Your task to perform on an android device: turn off picture-in-picture Image 0: 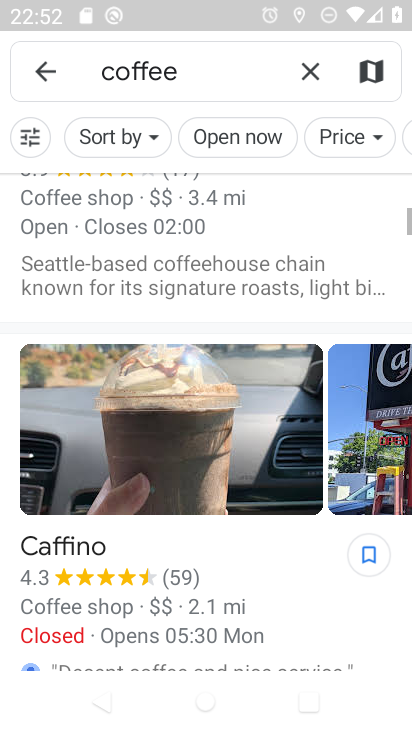
Step 0: press home button
Your task to perform on an android device: turn off picture-in-picture Image 1: 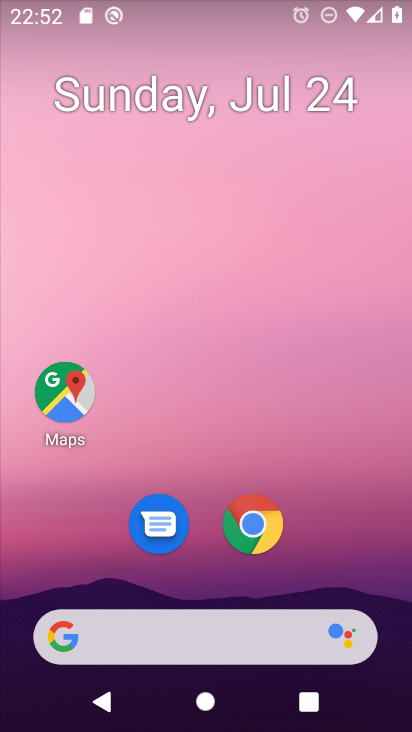
Step 1: click (258, 517)
Your task to perform on an android device: turn off picture-in-picture Image 2: 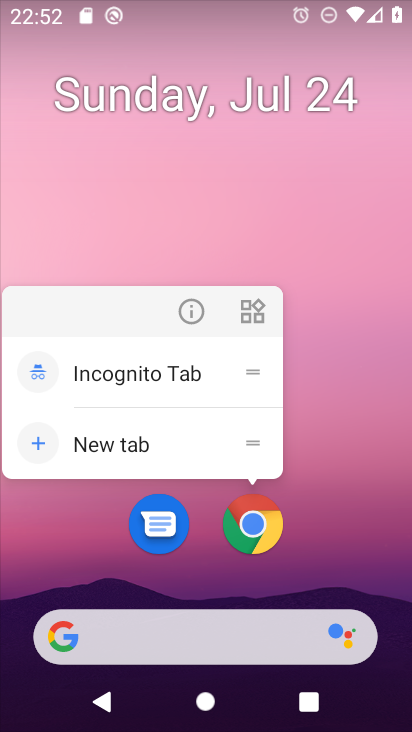
Step 2: click (193, 312)
Your task to perform on an android device: turn off picture-in-picture Image 3: 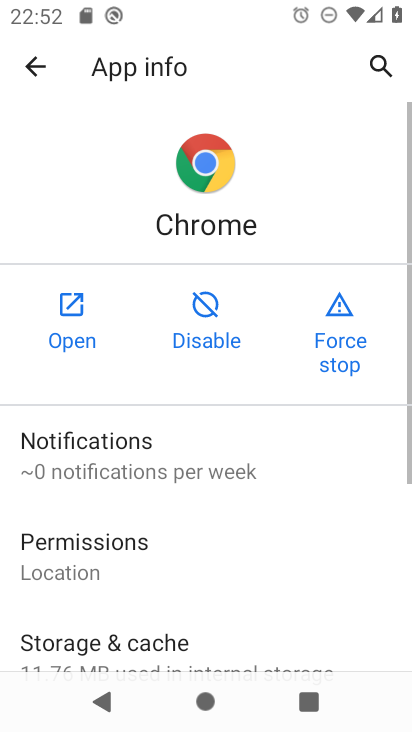
Step 3: drag from (294, 341) to (364, 77)
Your task to perform on an android device: turn off picture-in-picture Image 4: 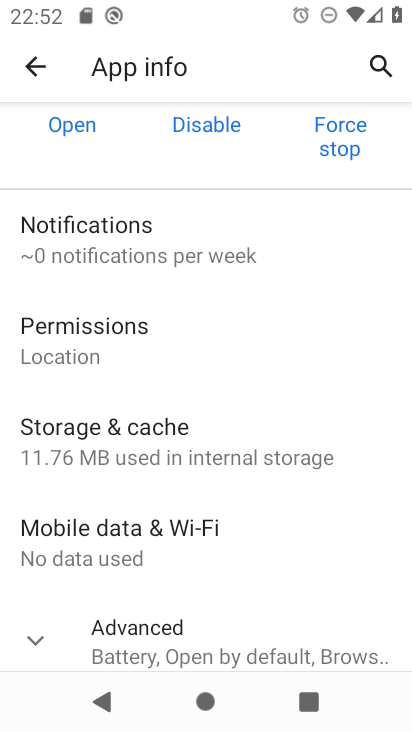
Step 4: drag from (170, 594) to (291, 104)
Your task to perform on an android device: turn off picture-in-picture Image 5: 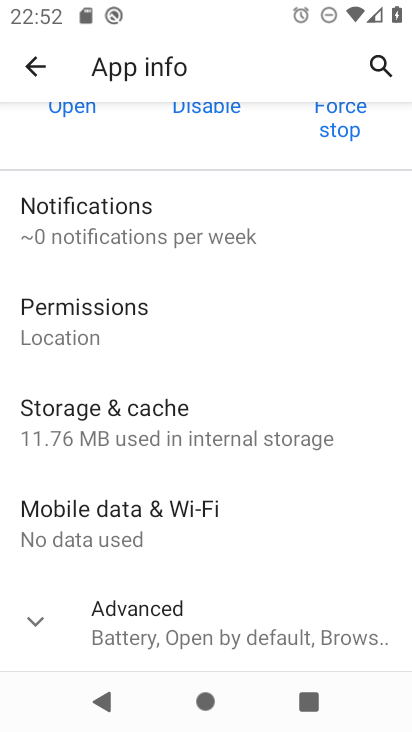
Step 5: click (123, 608)
Your task to perform on an android device: turn off picture-in-picture Image 6: 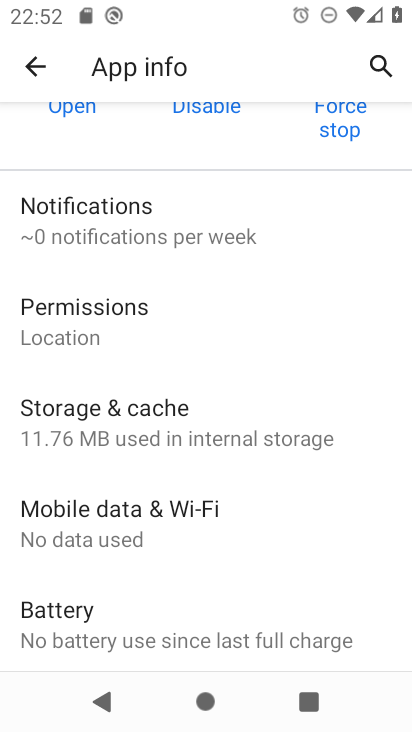
Step 6: drag from (203, 577) to (293, 138)
Your task to perform on an android device: turn off picture-in-picture Image 7: 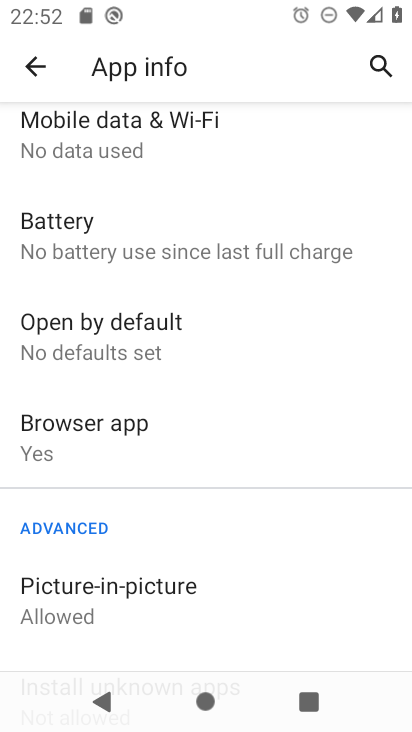
Step 7: click (107, 590)
Your task to perform on an android device: turn off picture-in-picture Image 8: 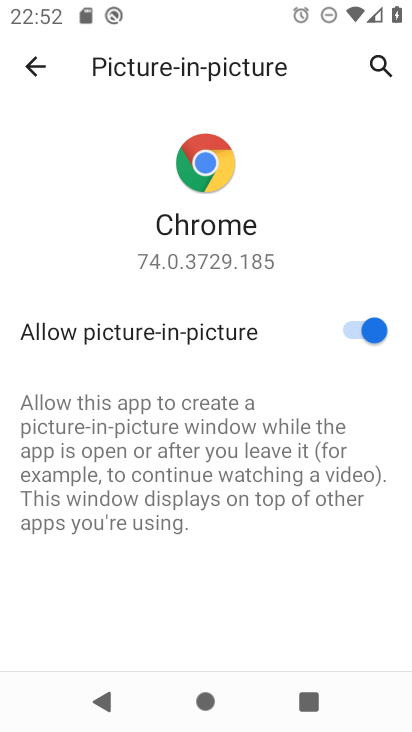
Step 8: click (352, 322)
Your task to perform on an android device: turn off picture-in-picture Image 9: 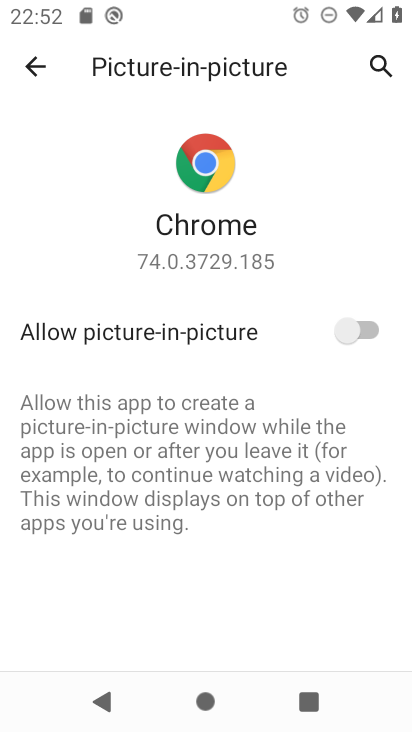
Step 9: task complete